Your task to perform on an android device: turn off priority inbox in the gmail app Image 0: 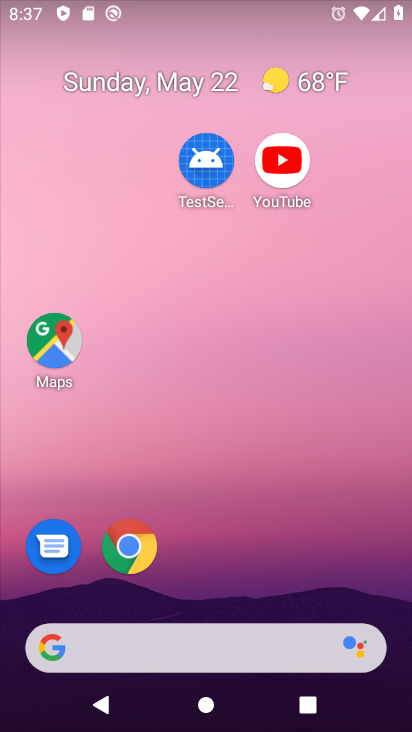
Step 0: drag from (257, 642) to (253, 319)
Your task to perform on an android device: turn off priority inbox in the gmail app Image 1: 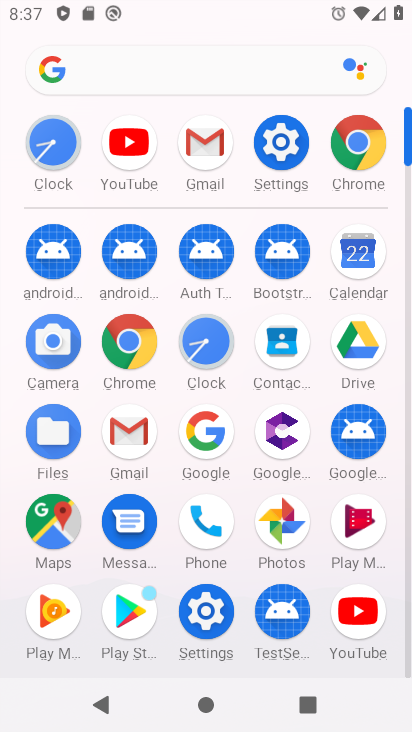
Step 1: click (116, 427)
Your task to perform on an android device: turn off priority inbox in the gmail app Image 2: 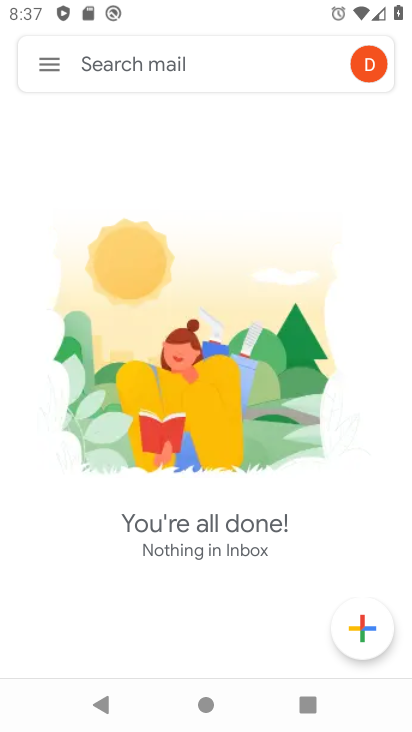
Step 2: click (47, 60)
Your task to perform on an android device: turn off priority inbox in the gmail app Image 3: 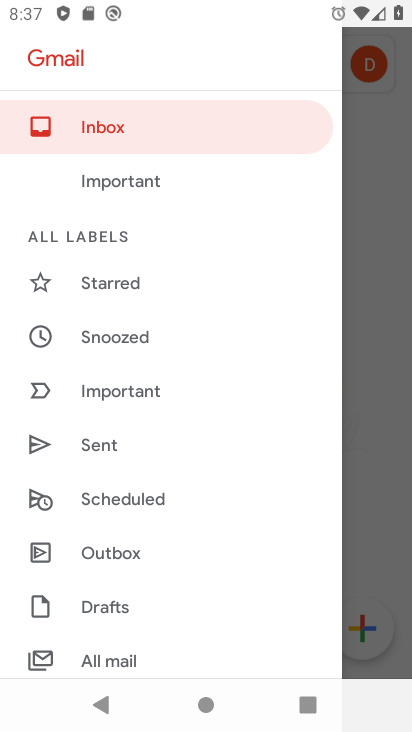
Step 3: drag from (173, 578) to (161, 264)
Your task to perform on an android device: turn off priority inbox in the gmail app Image 4: 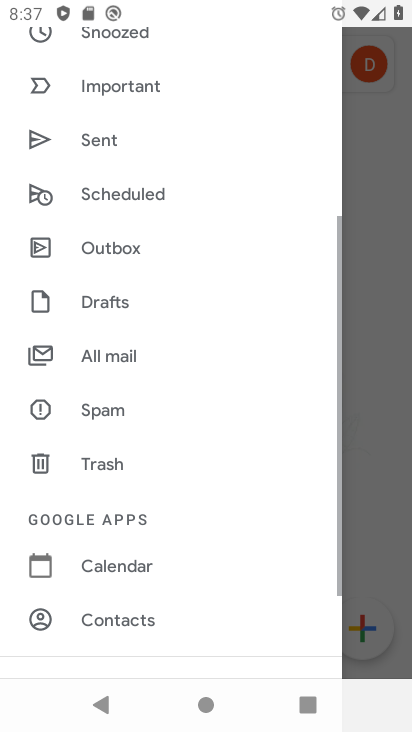
Step 4: drag from (198, 476) to (230, 218)
Your task to perform on an android device: turn off priority inbox in the gmail app Image 5: 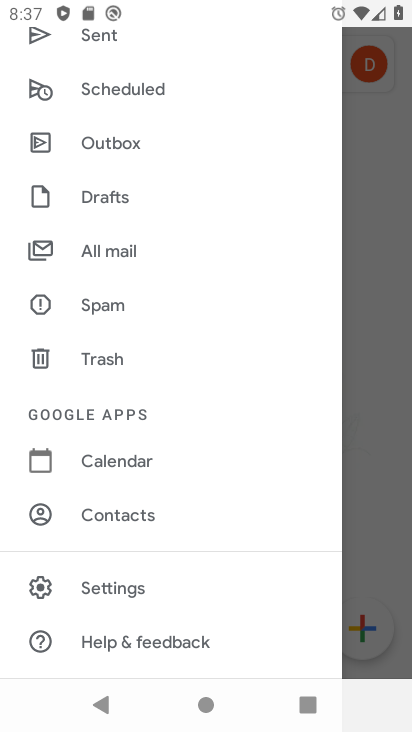
Step 5: click (108, 578)
Your task to perform on an android device: turn off priority inbox in the gmail app Image 6: 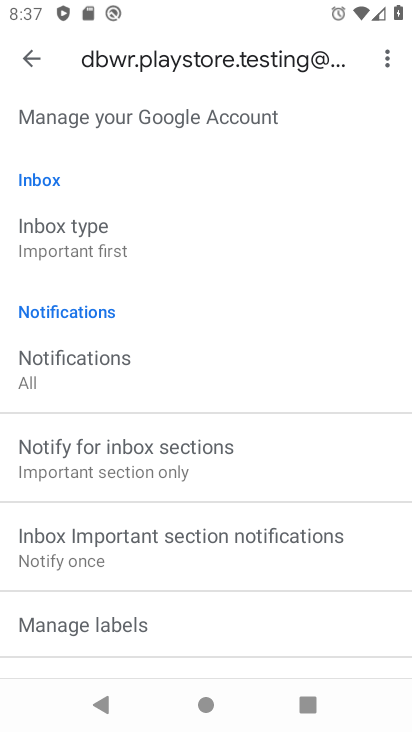
Step 6: click (80, 232)
Your task to perform on an android device: turn off priority inbox in the gmail app Image 7: 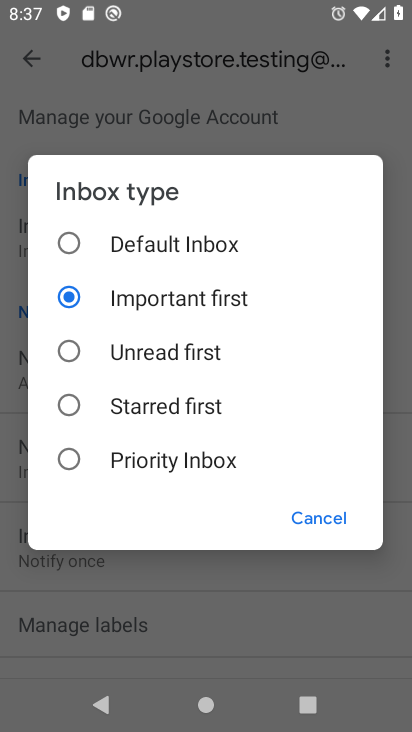
Step 7: click (70, 457)
Your task to perform on an android device: turn off priority inbox in the gmail app Image 8: 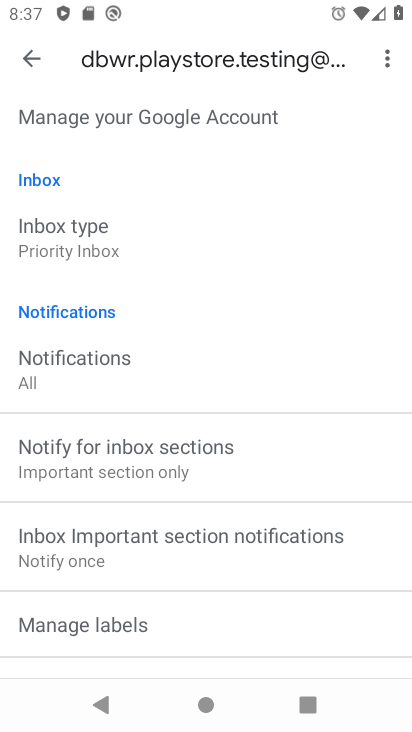
Step 8: task complete